Your task to perform on an android device: open chrome privacy settings Image 0: 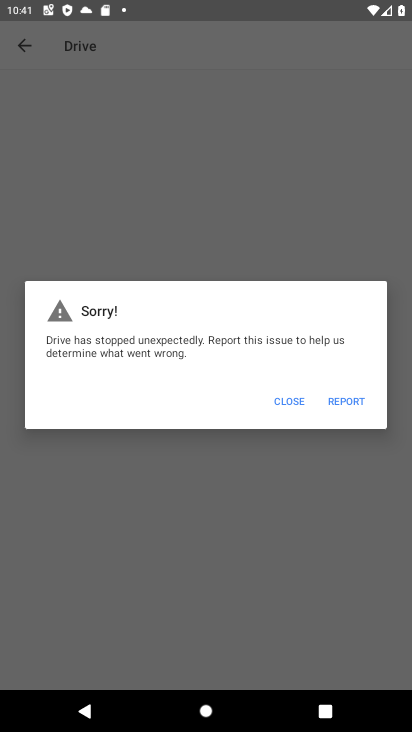
Step 0: press home button
Your task to perform on an android device: open chrome privacy settings Image 1: 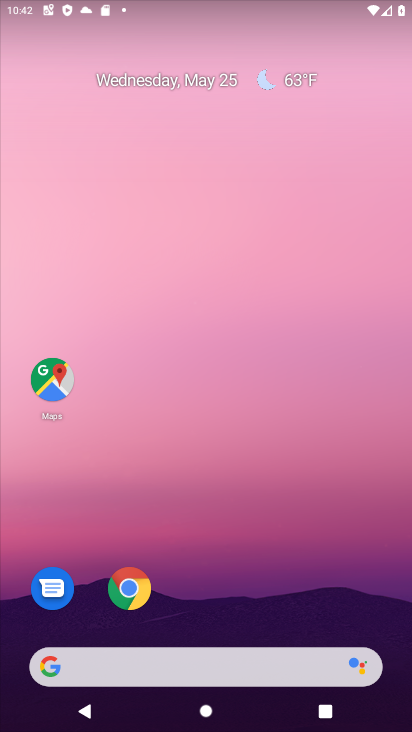
Step 1: click (121, 591)
Your task to perform on an android device: open chrome privacy settings Image 2: 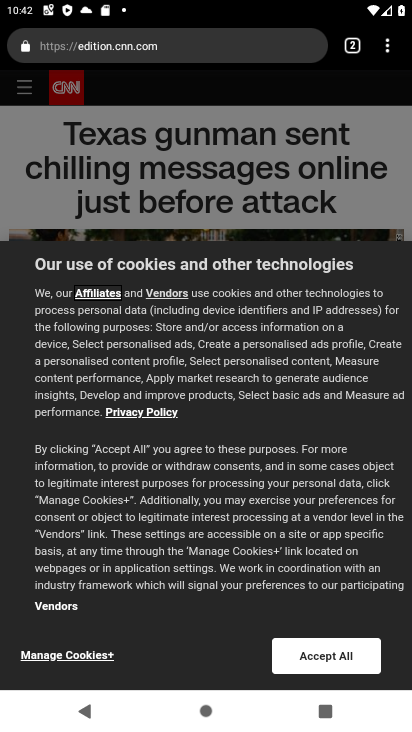
Step 2: click (373, 38)
Your task to perform on an android device: open chrome privacy settings Image 3: 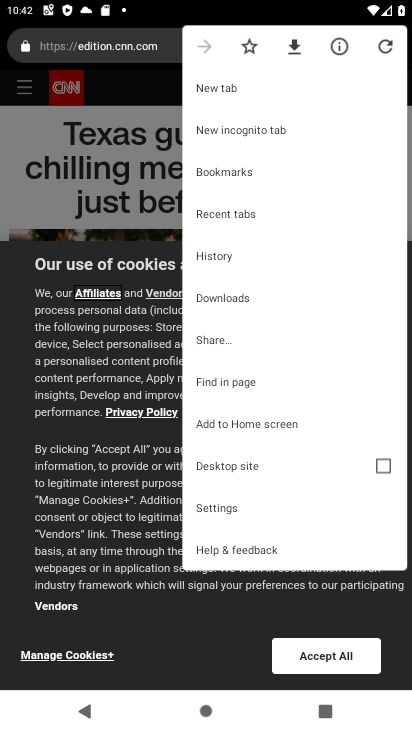
Step 3: click (241, 503)
Your task to perform on an android device: open chrome privacy settings Image 4: 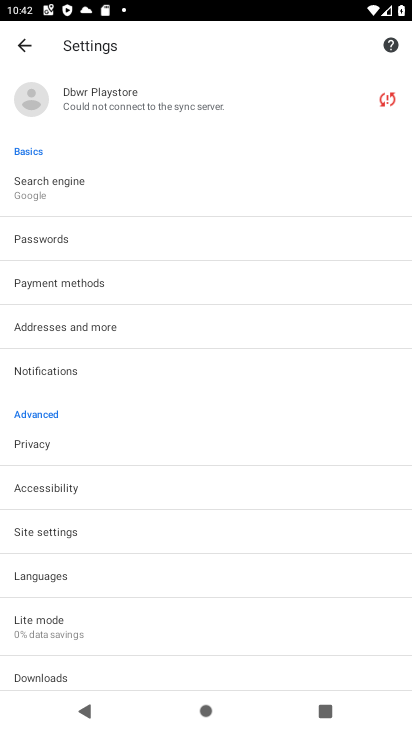
Step 4: click (44, 453)
Your task to perform on an android device: open chrome privacy settings Image 5: 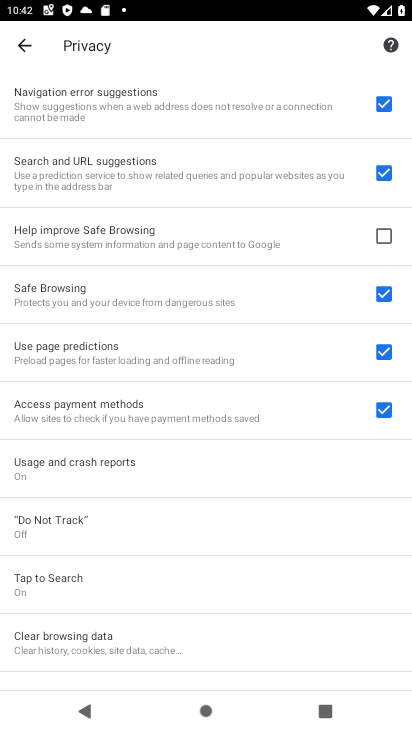
Step 5: task complete